Your task to perform on an android device: turn pop-ups off in chrome Image 0: 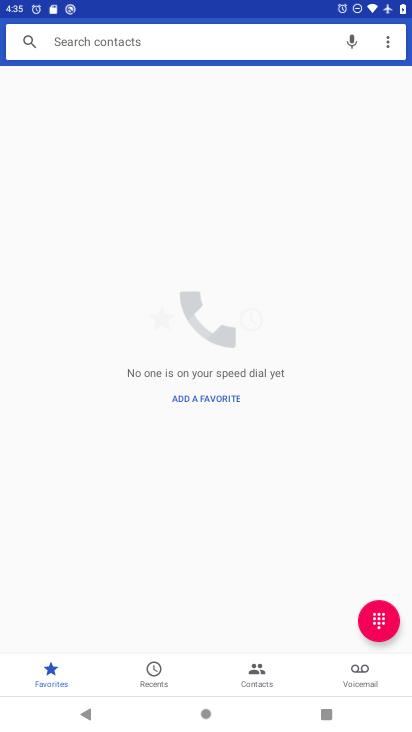
Step 0: press home button
Your task to perform on an android device: turn pop-ups off in chrome Image 1: 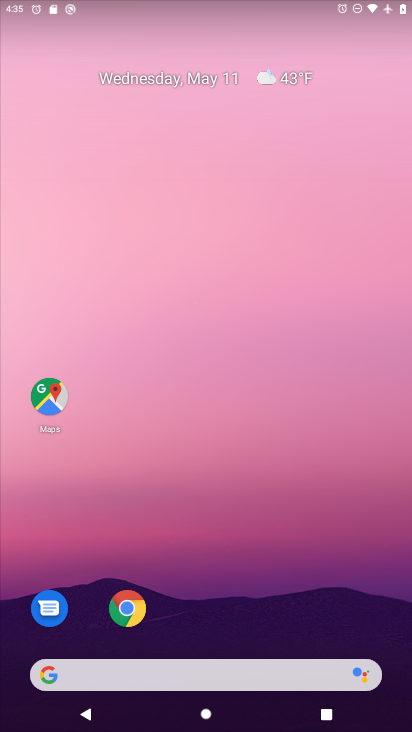
Step 1: click (125, 609)
Your task to perform on an android device: turn pop-ups off in chrome Image 2: 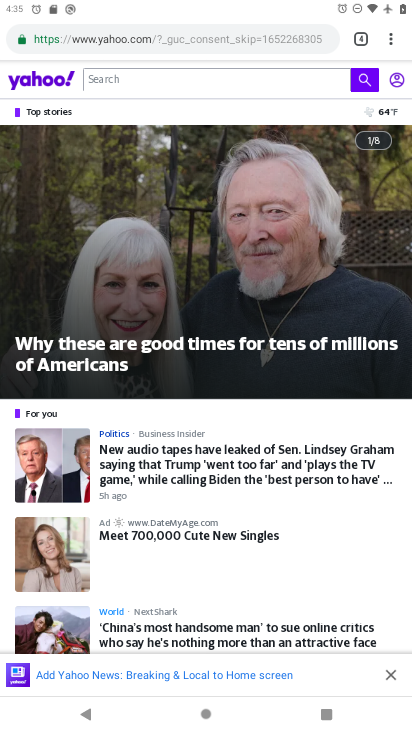
Step 2: click (391, 41)
Your task to perform on an android device: turn pop-ups off in chrome Image 3: 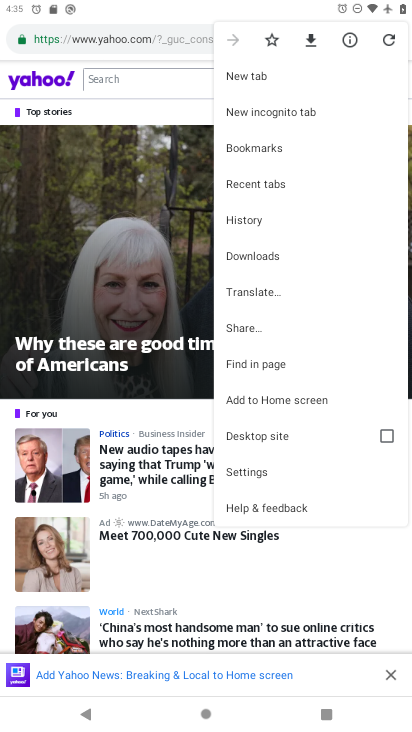
Step 3: click (252, 470)
Your task to perform on an android device: turn pop-ups off in chrome Image 4: 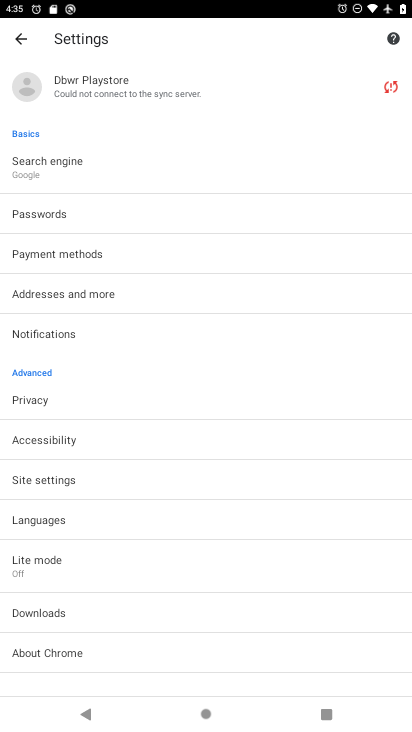
Step 4: click (62, 476)
Your task to perform on an android device: turn pop-ups off in chrome Image 5: 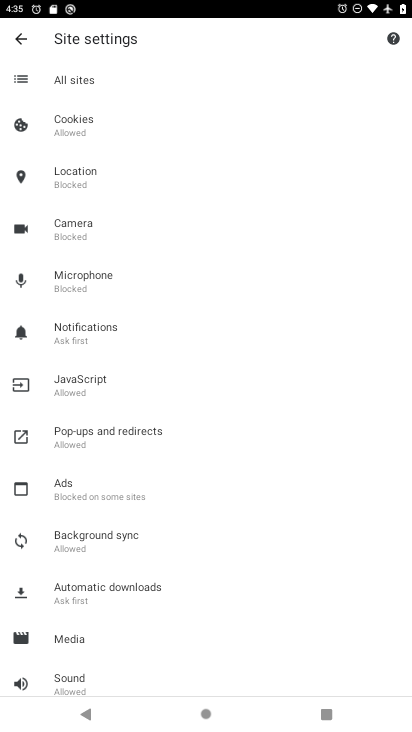
Step 5: click (83, 433)
Your task to perform on an android device: turn pop-ups off in chrome Image 6: 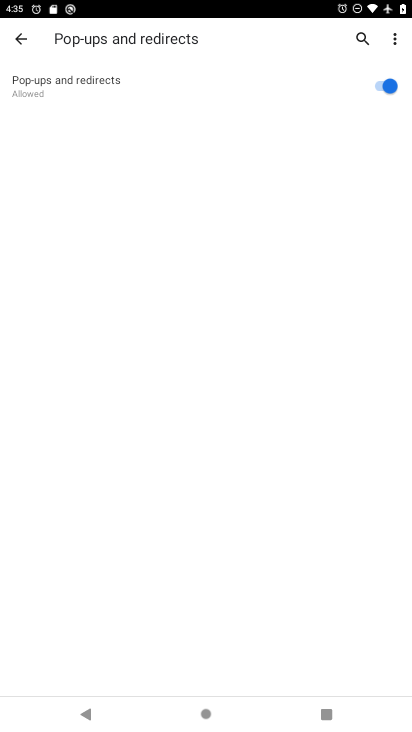
Step 6: click (374, 87)
Your task to perform on an android device: turn pop-ups off in chrome Image 7: 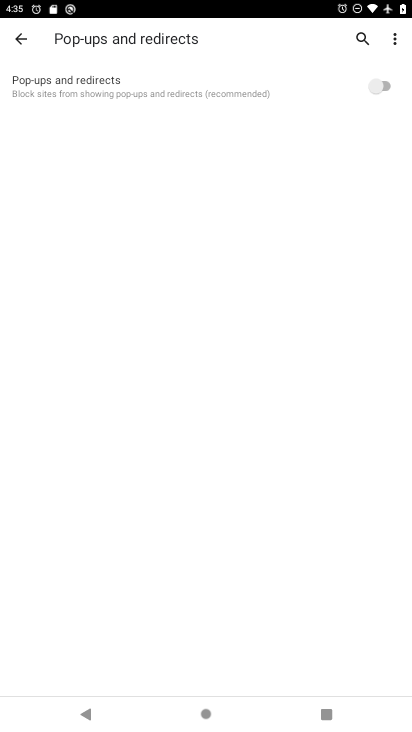
Step 7: task complete